Your task to perform on an android device: change notifications settings Image 0: 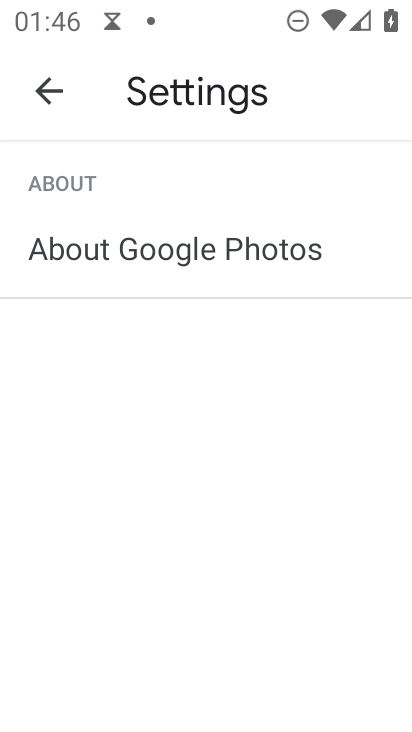
Step 0: press home button
Your task to perform on an android device: change notifications settings Image 1: 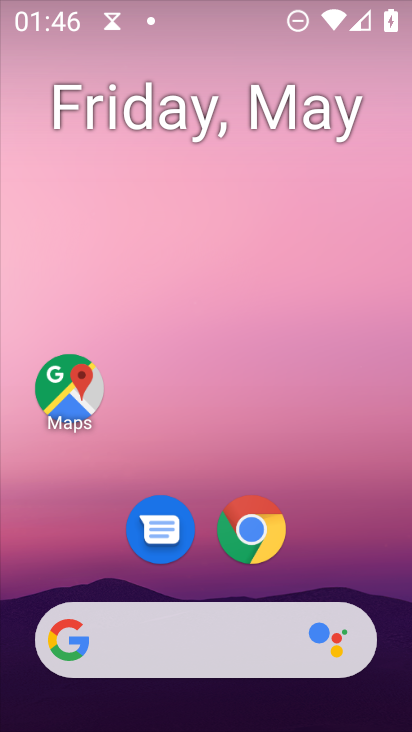
Step 1: drag from (312, 472) to (328, 218)
Your task to perform on an android device: change notifications settings Image 2: 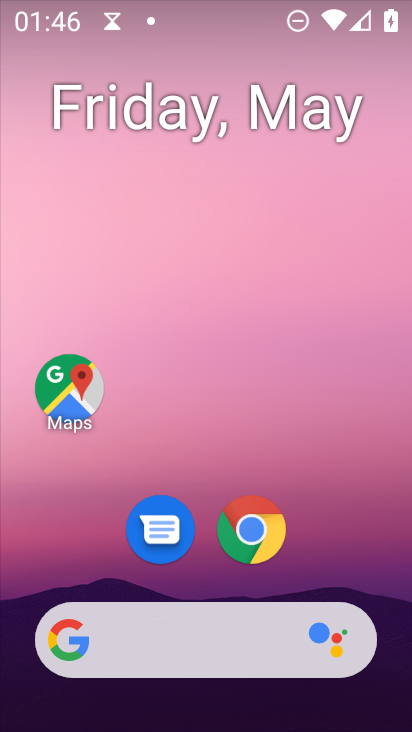
Step 2: drag from (261, 520) to (300, 226)
Your task to perform on an android device: change notifications settings Image 3: 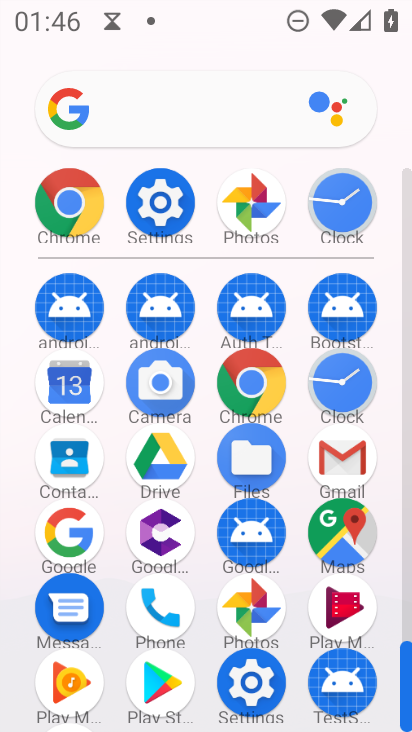
Step 3: click (159, 203)
Your task to perform on an android device: change notifications settings Image 4: 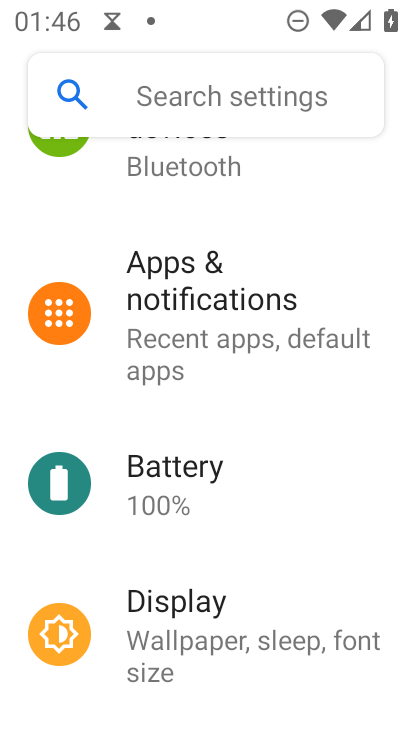
Step 4: click (216, 302)
Your task to perform on an android device: change notifications settings Image 5: 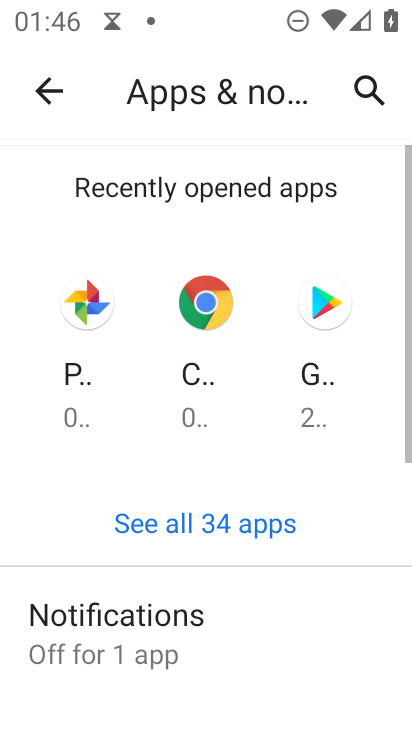
Step 5: click (165, 667)
Your task to perform on an android device: change notifications settings Image 6: 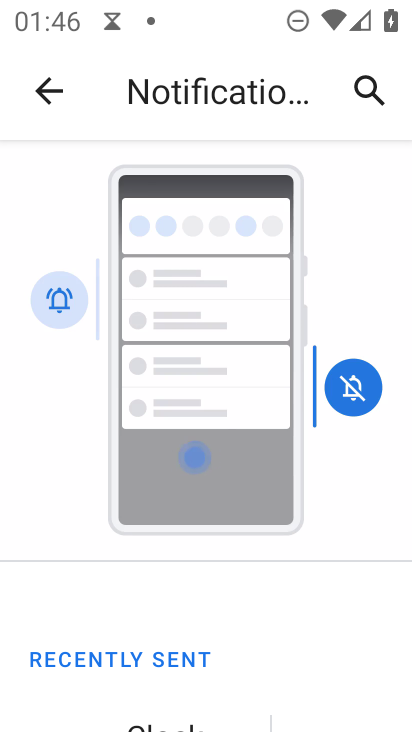
Step 6: task complete